Your task to perform on an android device: Open calendar and show me the third week of next month Image 0: 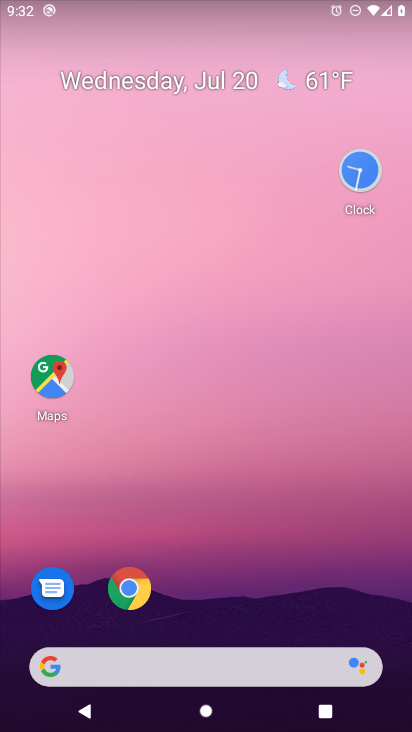
Step 0: drag from (36, 676) to (363, 61)
Your task to perform on an android device: Open calendar and show me the third week of next month Image 1: 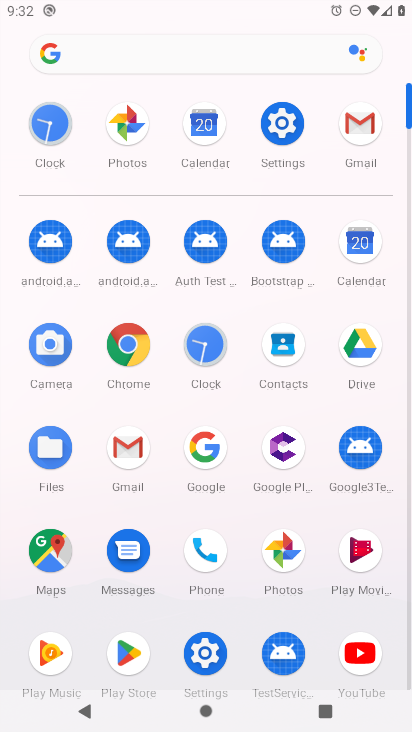
Step 1: click (352, 258)
Your task to perform on an android device: Open calendar and show me the third week of next month Image 2: 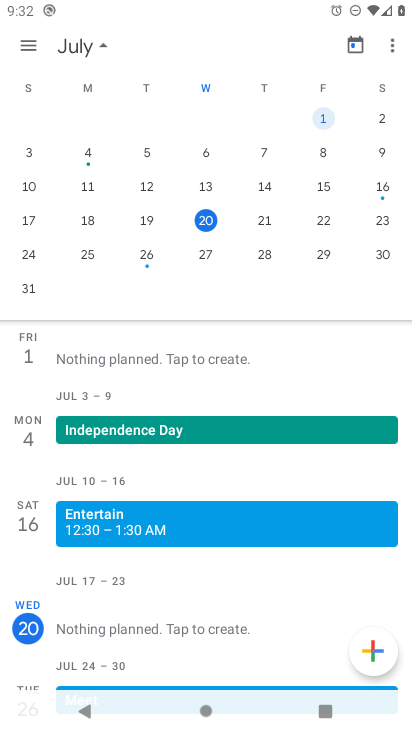
Step 2: drag from (380, 142) to (40, 147)
Your task to perform on an android device: Open calendar and show me the third week of next month Image 3: 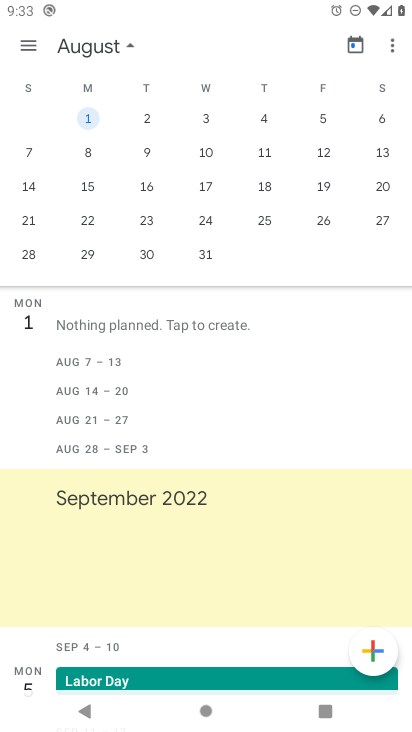
Step 3: click (89, 183)
Your task to perform on an android device: Open calendar and show me the third week of next month Image 4: 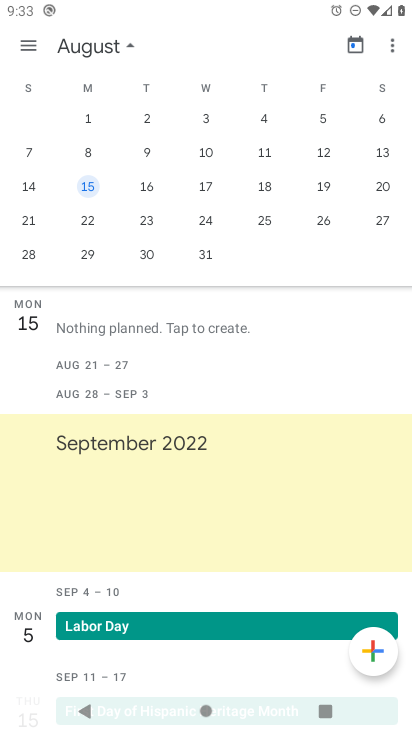
Step 4: task complete